Your task to perform on an android device: Show the shopping cart on walmart.com. Search for "usb-b" on walmart.com, select the first entry, and add it to the cart. Image 0: 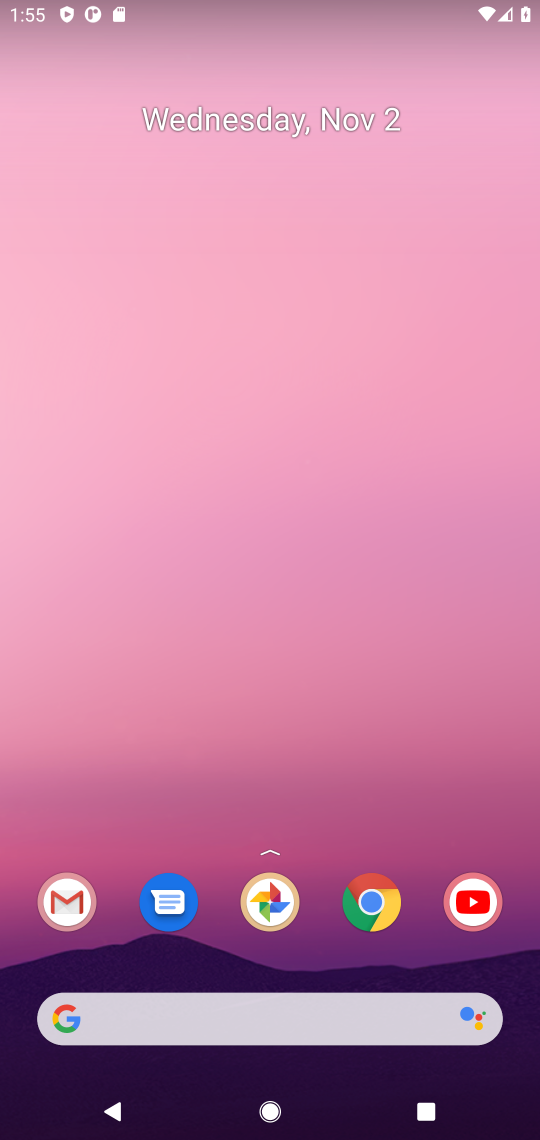
Step 0: press home button
Your task to perform on an android device: Show the shopping cart on walmart.com. Search for "usb-b" on walmart.com, select the first entry, and add it to the cart. Image 1: 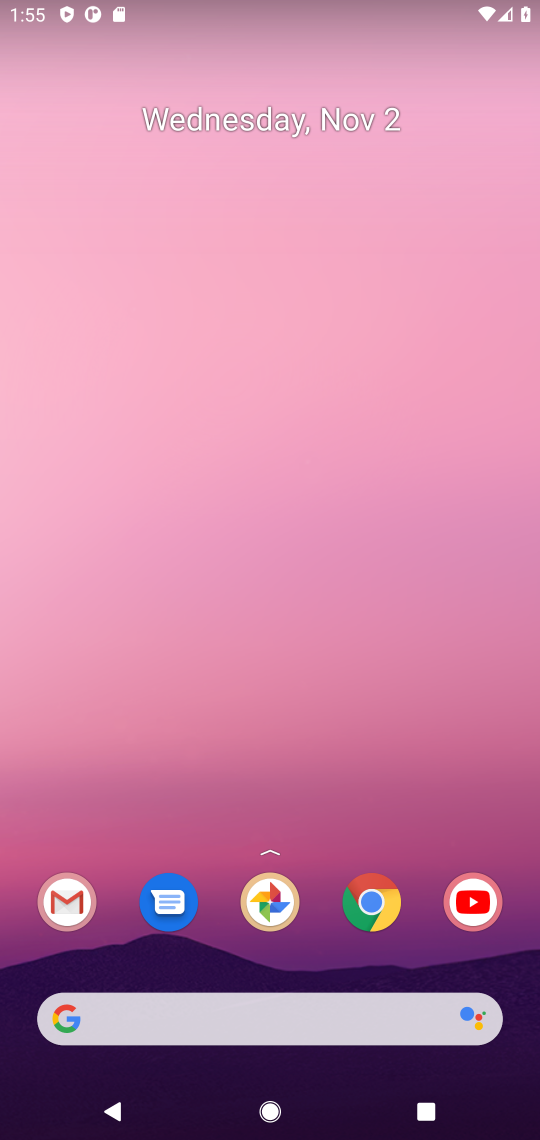
Step 1: click (266, 1025)
Your task to perform on an android device: Show the shopping cart on walmart.com. Search for "usb-b" on walmart.com, select the first entry, and add it to the cart. Image 2: 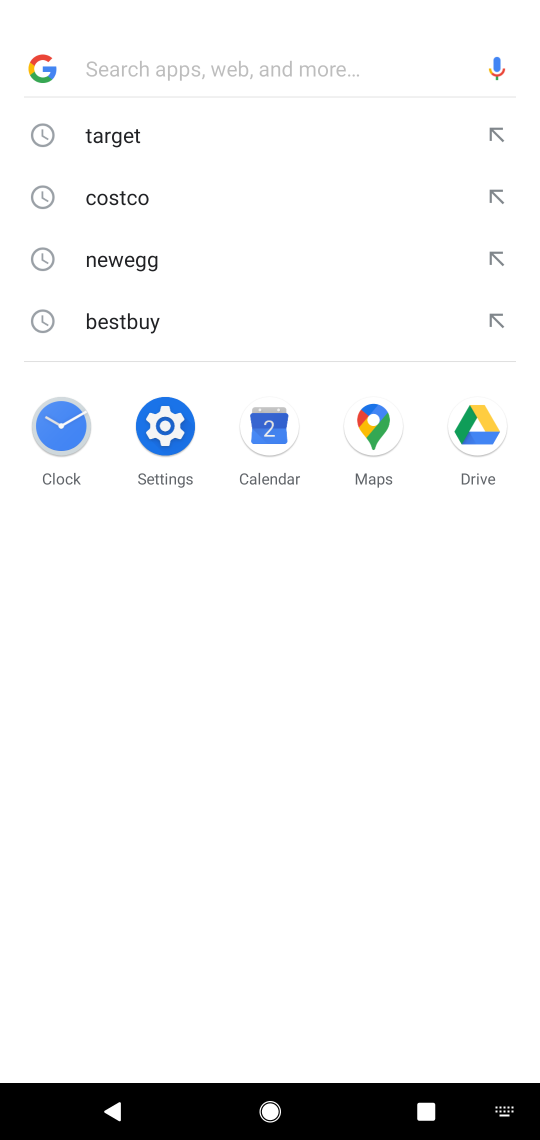
Step 2: type "walmart"
Your task to perform on an android device: Show the shopping cart on walmart.com. Search for "usb-b" on walmart.com, select the first entry, and add it to the cart. Image 3: 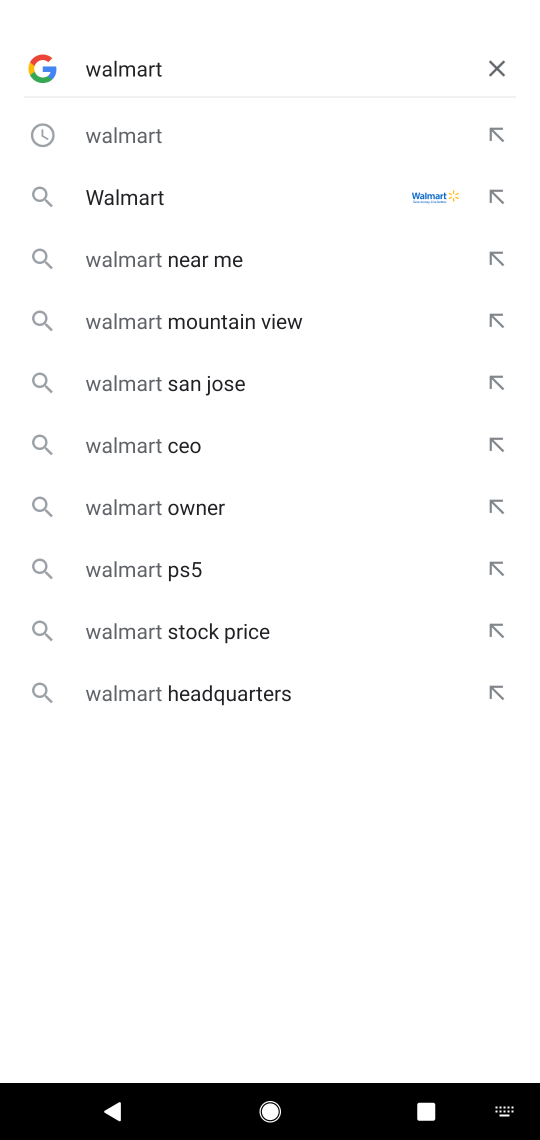
Step 3: click (141, 127)
Your task to perform on an android device: Show the shopping cart on walmart.com. Search for "usb-b" on walmart.com, select the first entry, and add it to the cart. Image 4: 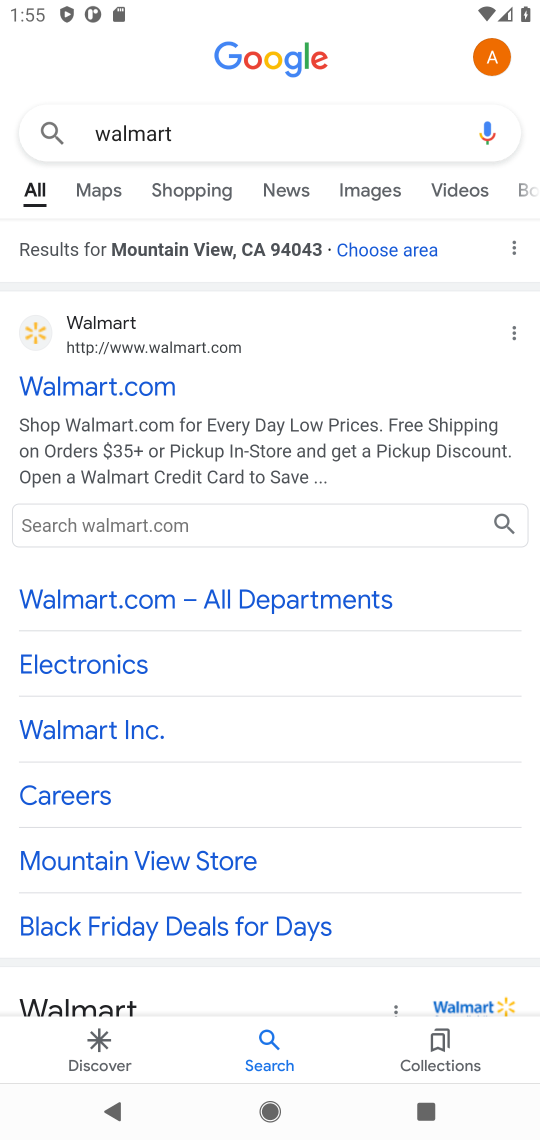
Step 4: click (101, 386)
Your task to perform on an android device: Show the shopping cart on walmart.com. Search for "usb-b" on walmart.com, select the first entry, and add it to the cart. Image 5: 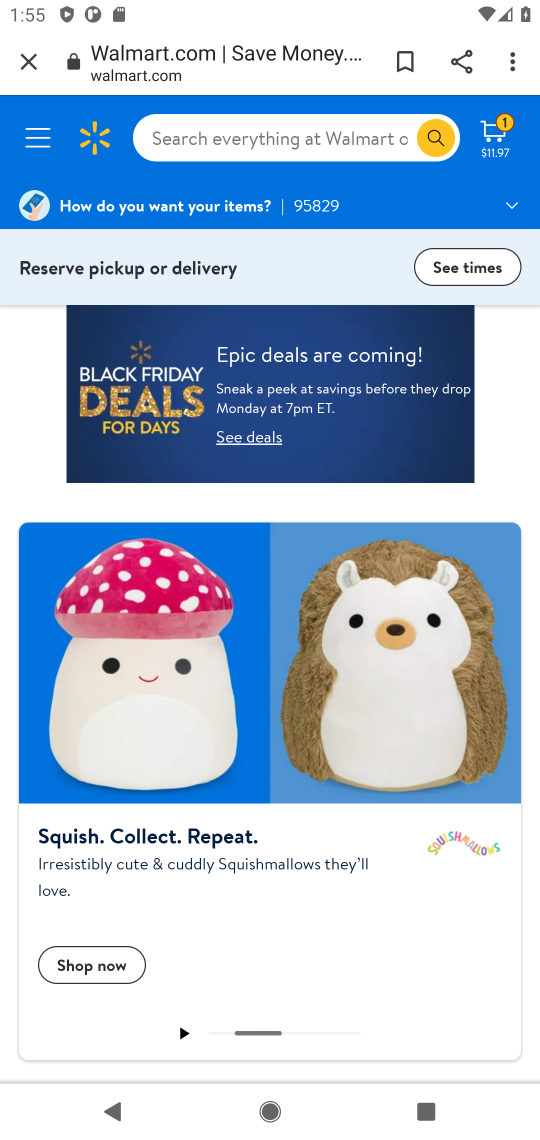
Step 5: click (224, 130)
Your task to perform on an android device: Show the shopping cart on walmart.com. Search for "usb-b" on walmart.com, select the first entry, and add it to the cart. Image 6: 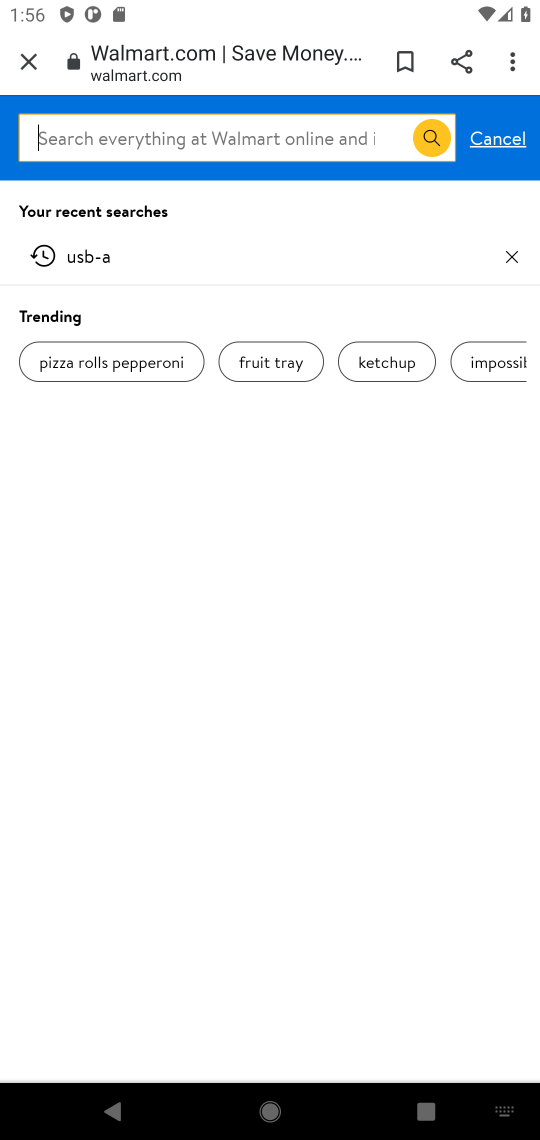
Step 6: type "usb-b"
Your task to perform on an android device: Show the shopping cart on walmart.com. Search for "usb-b" on walmart.com, select the first entry, and add it to the cart. Image 7: 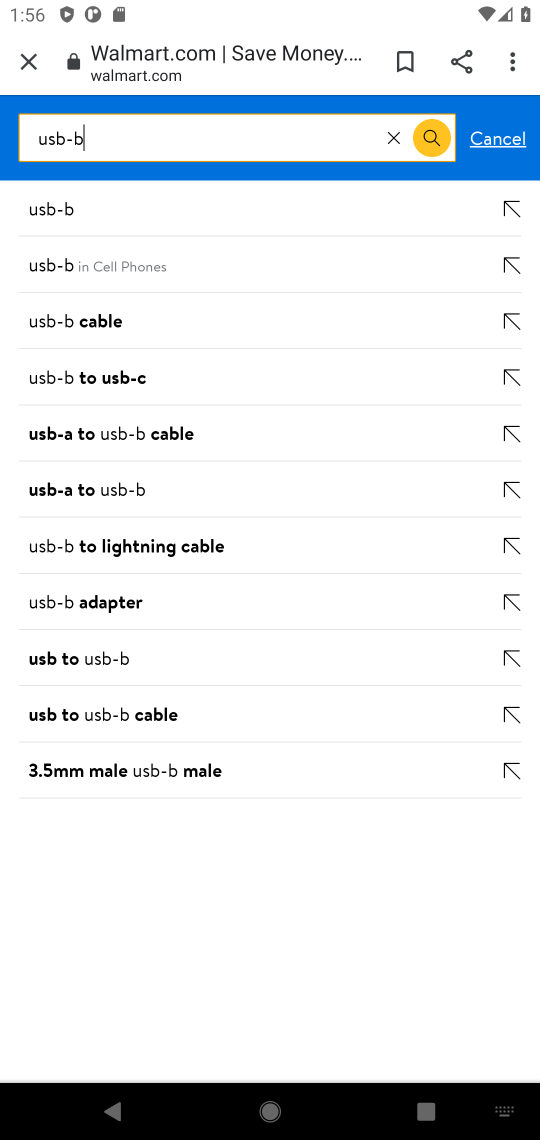
Step 7: click (80, 209)
Your task to perform on an android device: Show the shopping cart on walmart.com. Search for "usb-b" on walmart.com, select the first entry, and add it to the cart. Image 8: 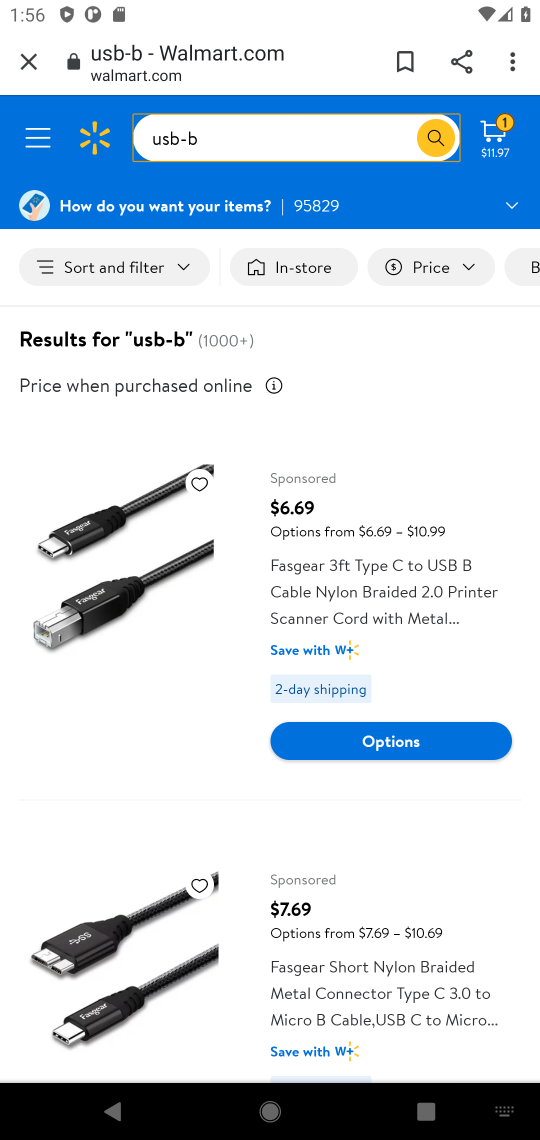
Step 8: click (358, 737)
Your task to perform on an android device: Show the shopping cart on walmart.com. Search for "usb-b" on walmart.com, select the first entry, and add it to the cart. Image 9: 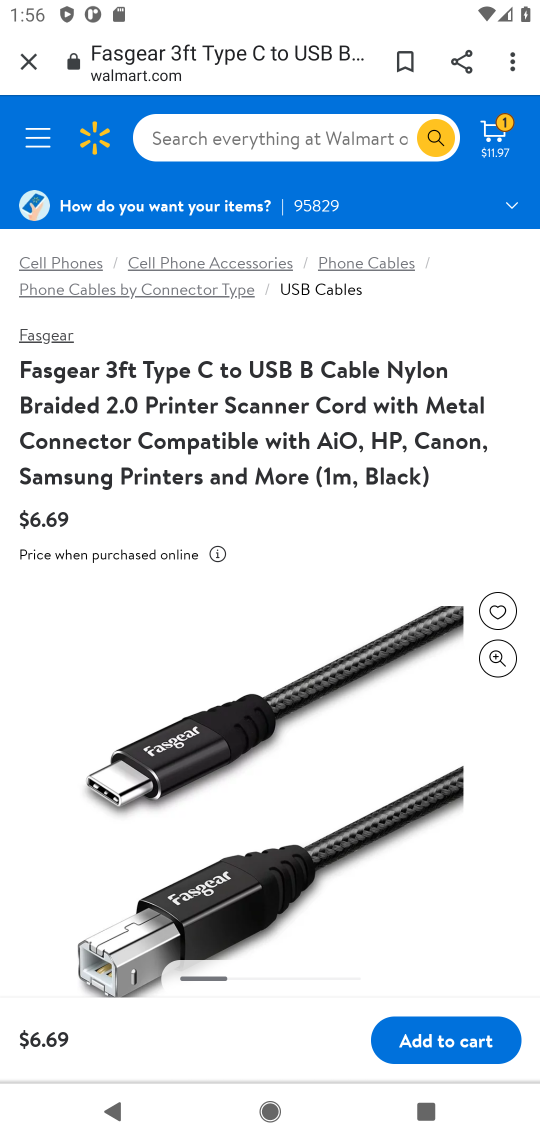
Step 9: click (437, 1047)
Your task to perform on an android device: Show the shopping cart on walmart.com. Search for "usb-b" on walmart.com, select the first entry, and add it to the cart. Image 10: 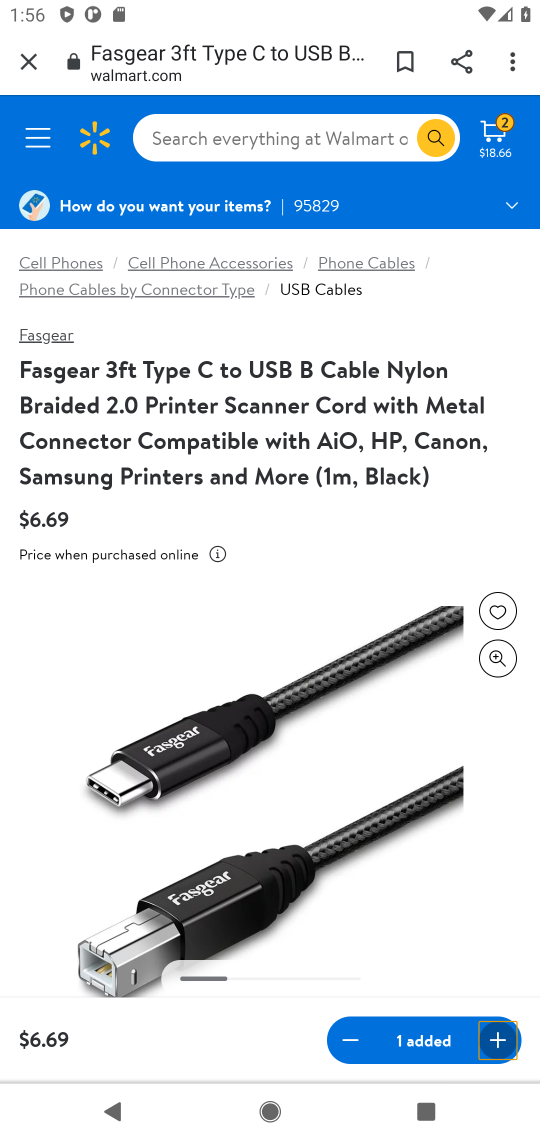
Step 10: task complete